Your task to perform on an android device: turn off priority inbox in the gmail app Image 0: 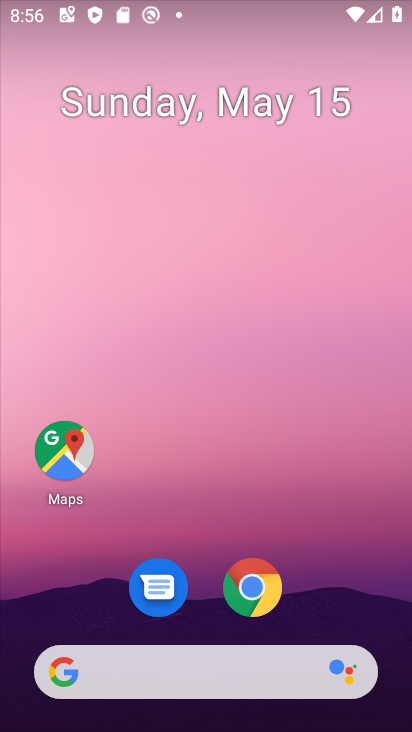
Step 0: drag from (378, 639) to (300, 34)
Your task to perform on an android device: turn off priority inbox in the gmail app Image 1: 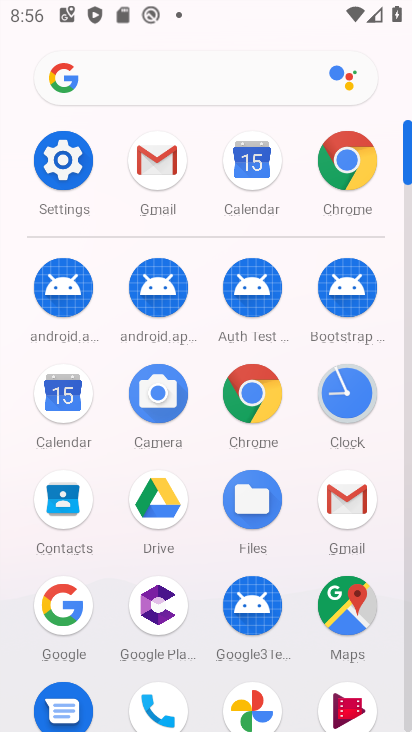
Step 1: click (336, 493)
Your task to perform on an android device: turn off priority inbox in the gmail app Image 2: 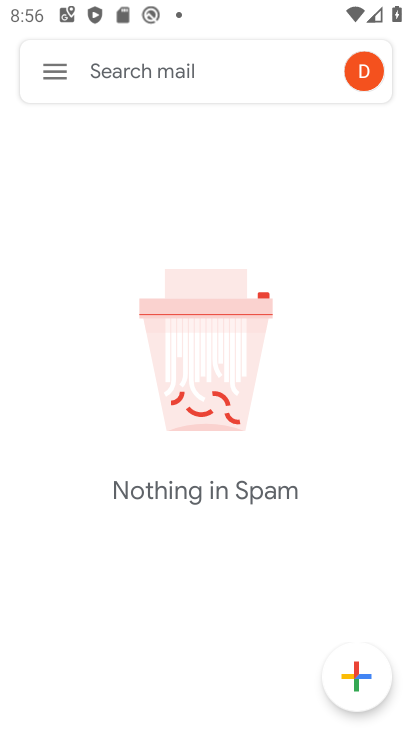
Step 2: click (49, 79)
Your task to perform on an android device: turn off priority inbox in the gmail app Image 3: 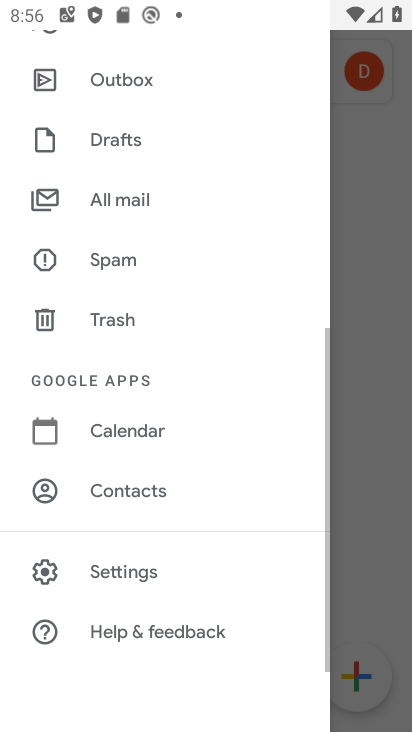
Step 3: click (150, 563)
Your task to perform on an android device: turn off priority inbox in the gmail app Image 4: 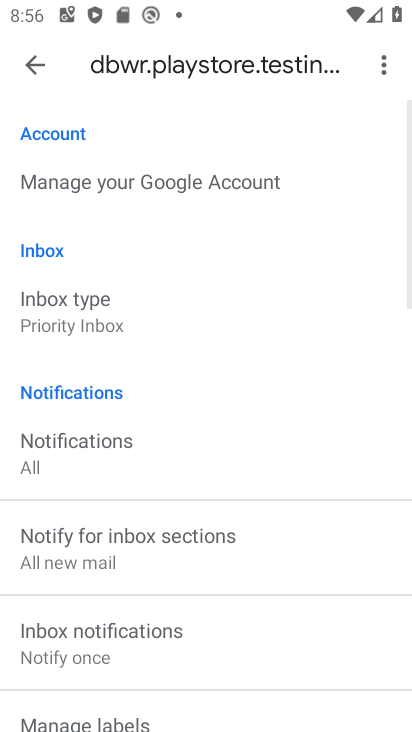
Step 4: click (166, 305)
Your task to perform on an android device: turn off priority inbox in the gmail app Image 5: 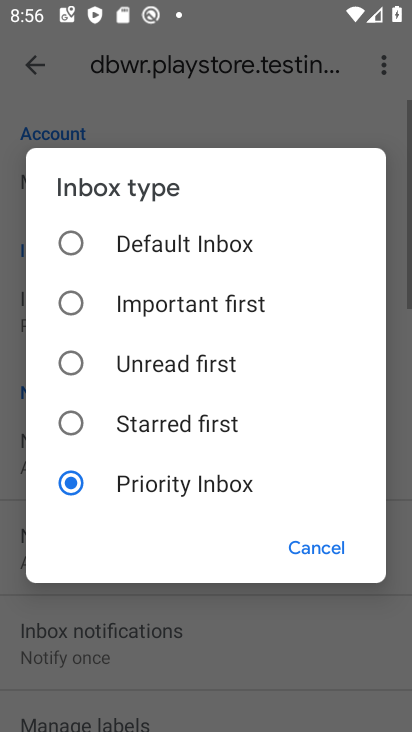
Step 5: click (160, 420)
Your task to perform on an android device: turn off priority inbox in the gmail app Image 6: 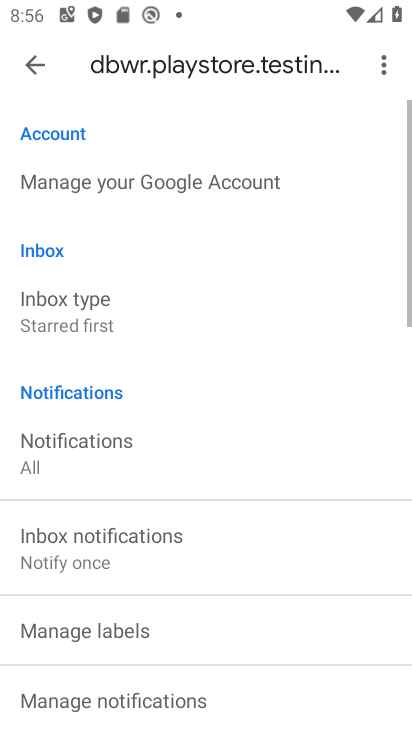
Step 6: task complete